Your task to perform on an android device: Add bose soundsport free to the cart on amazon Image 0: 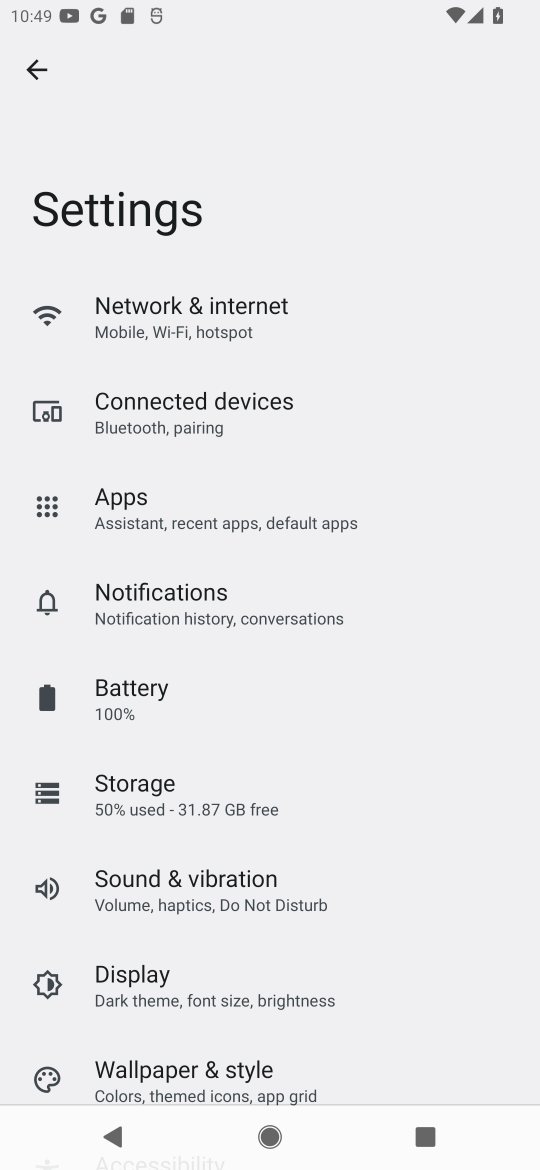
Step 0: press home button
Your task to perform on an android device: Add bose soundsport free to the cart on amazon Image 1: 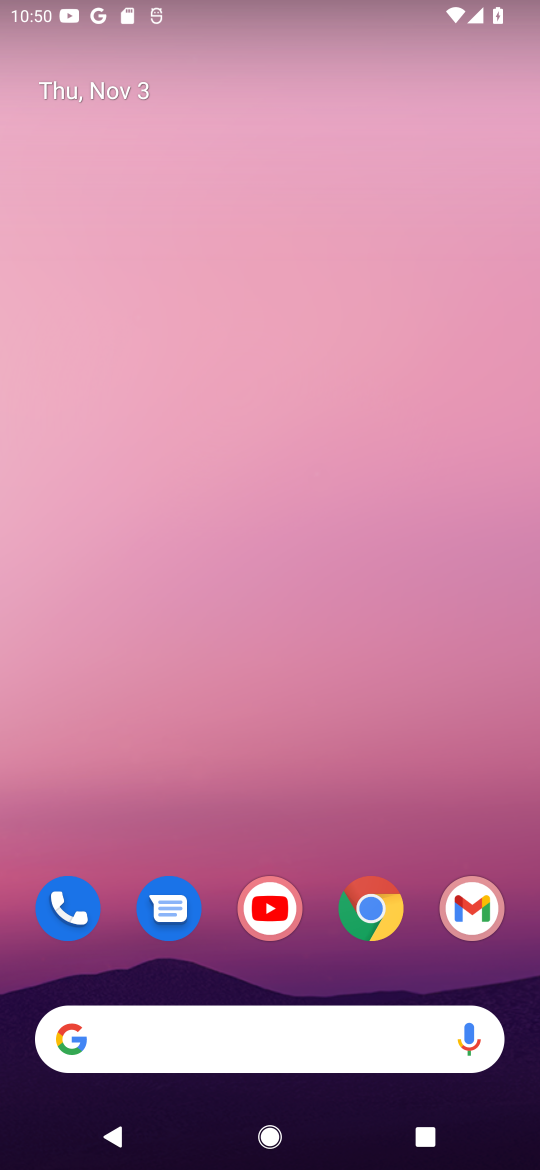
Step 1: click (381, 911)
Your task to perform on an android device: Add bose soundsport free to the cart on amazon Image 2: 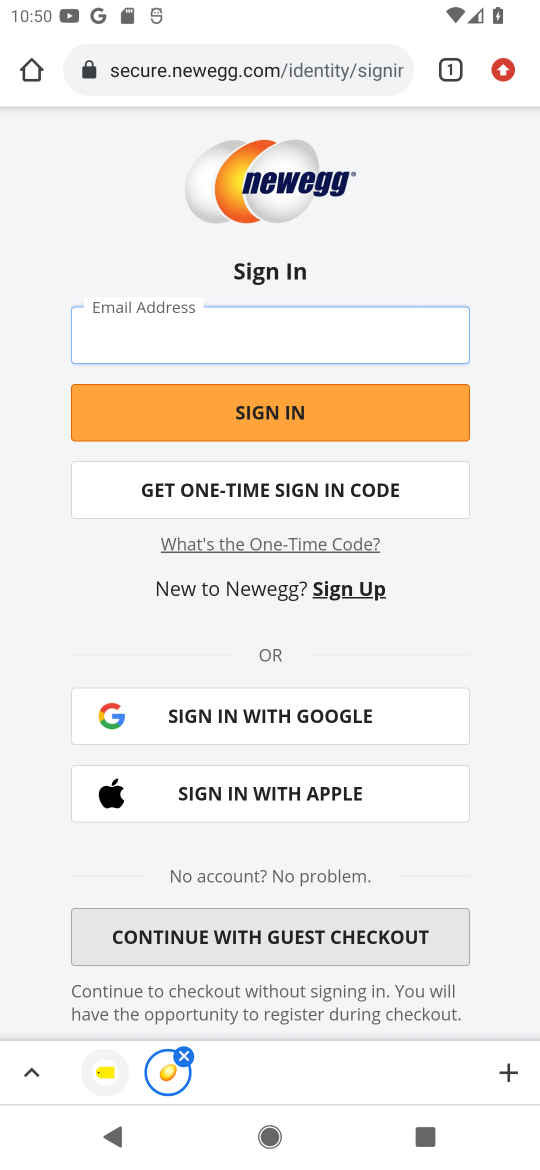
Step 2: click (25, 70)
Your task to perform on an android device: Add bose soundsport free to the cart on amazon Image 3: 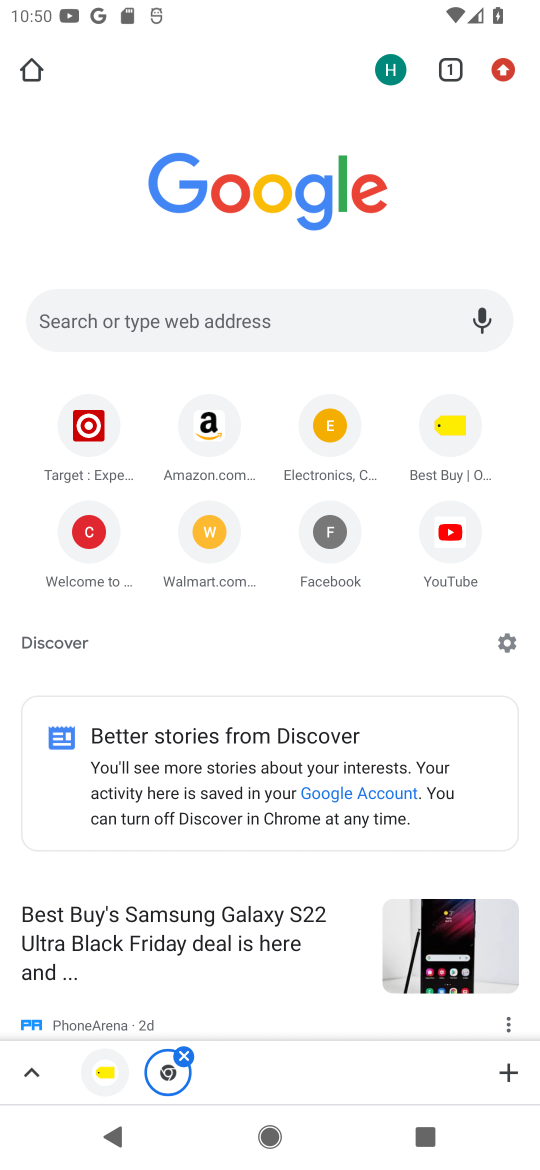
Step 3: click (213, 422)
Your task to perform on an android device: Add bose soundsport free to the cart on amazon Image 4: 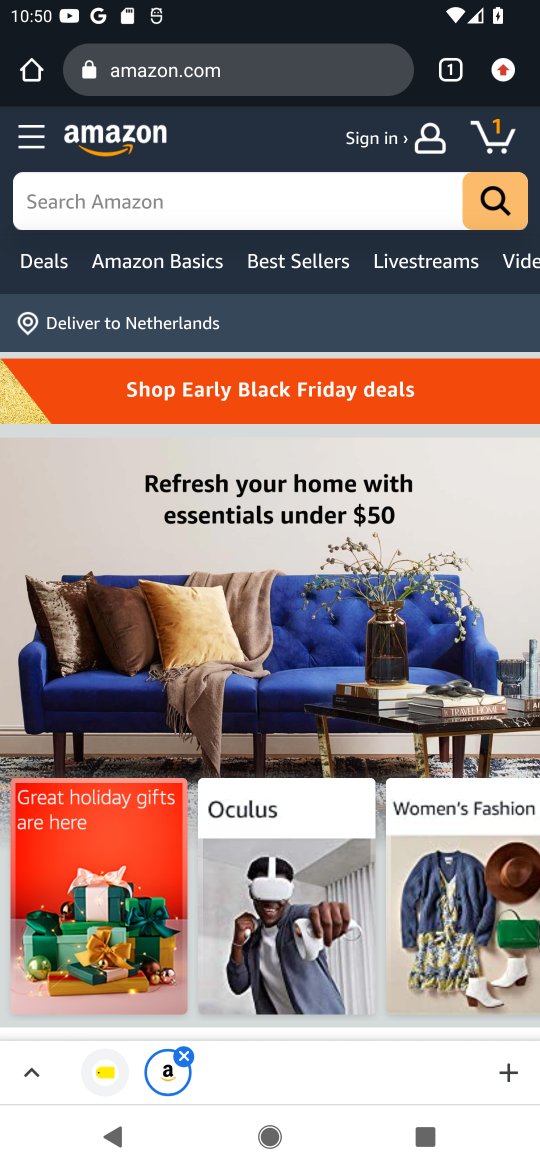
Step 4: click (312, 195)
Your task to perform on an android device: Add bose soundsport free to the cart on amazon Image 5: 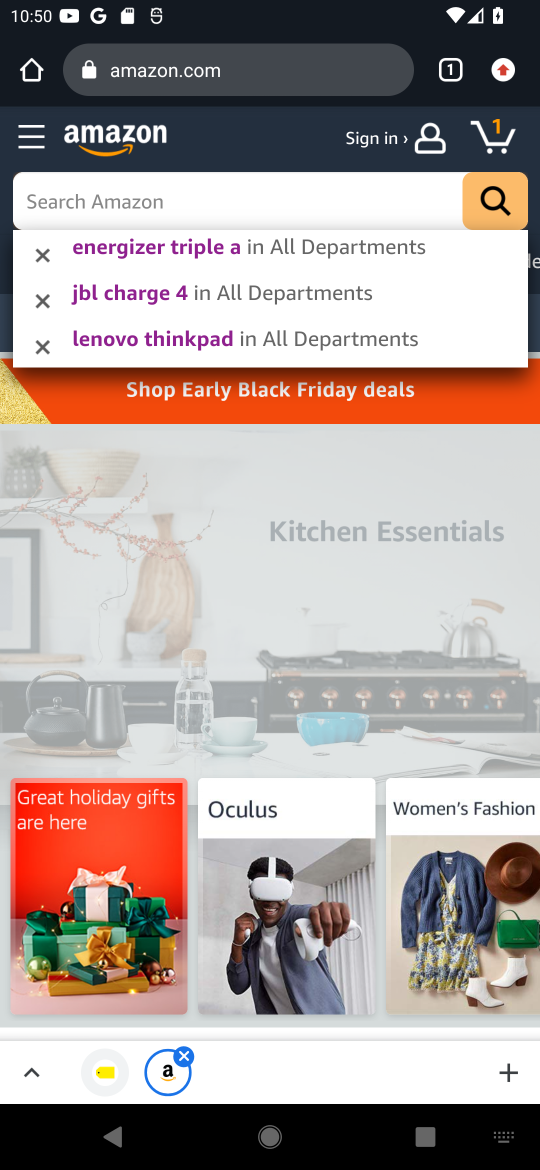
Step 5: type "bose soundsport free"
Your task to perform on an android device: Add bose soundsport free to the cart on amazon Image 6: 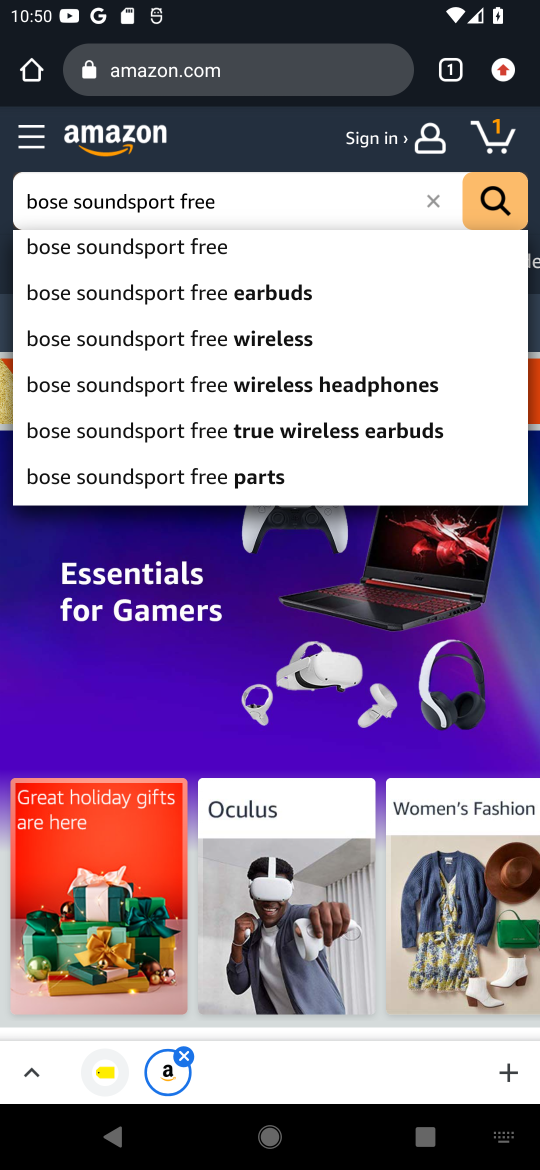
Step 6: click (47, 245)
Your task to perform on an android device: Add bose soundsport free to the cart on amazon Image 7: 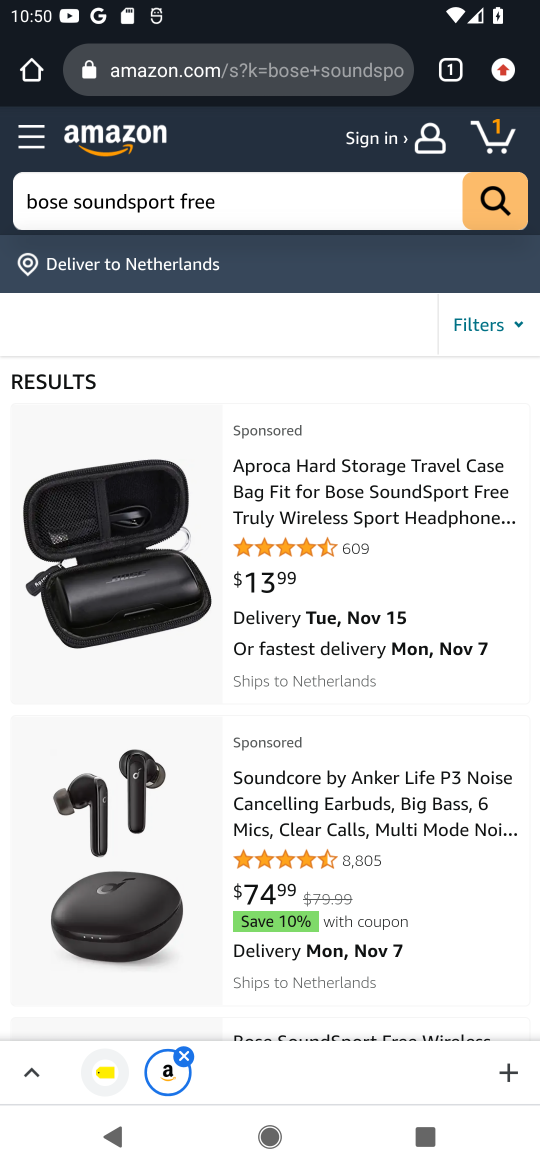
Step 7: click (126, 575)
Your task to perform on an android device: Add bose soundsport free to the cart on amazon Image 8: 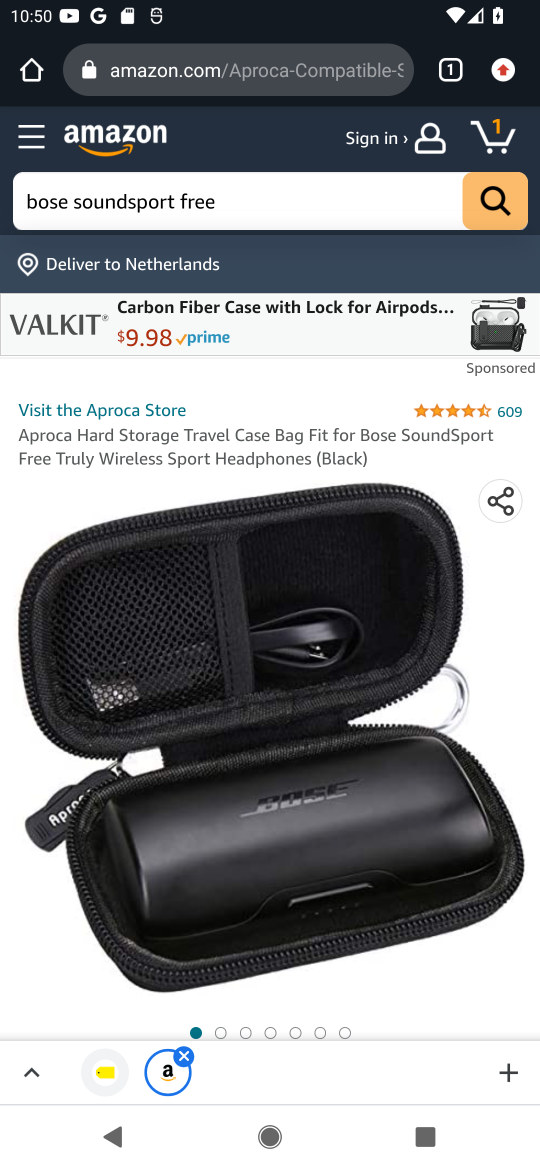
Step 8: drag from (359, 915) to (369, 683)
Your task to perform on an android device: Add bose soundsport free to the cart on amazon Image 9: 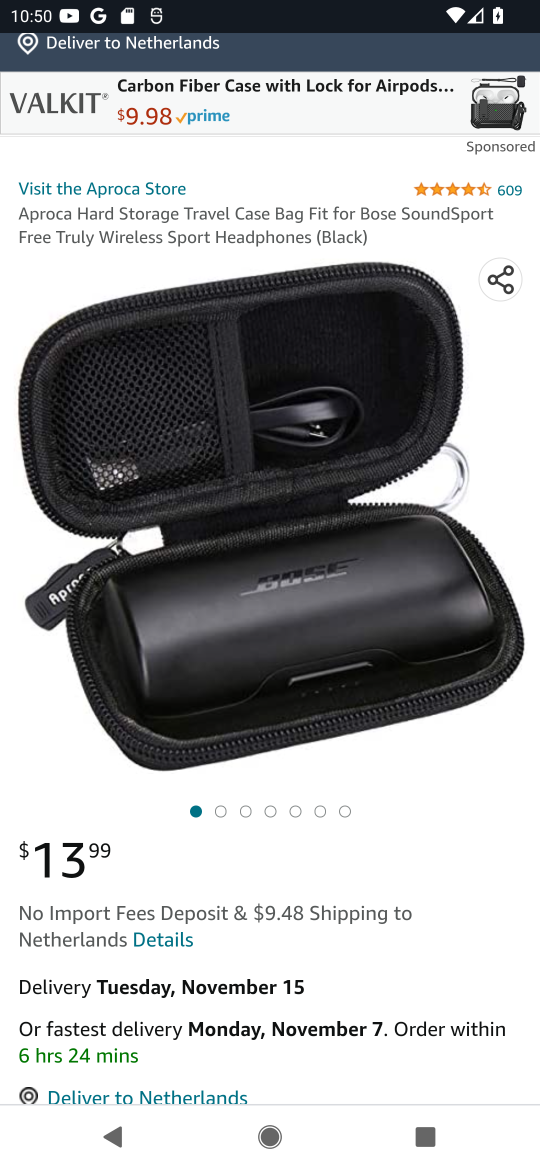
Step 9: drag from (406, 760) to (431, 499)
Your task to perform on an android device: Add bose soundsport free to the cart on amazon Image 10: 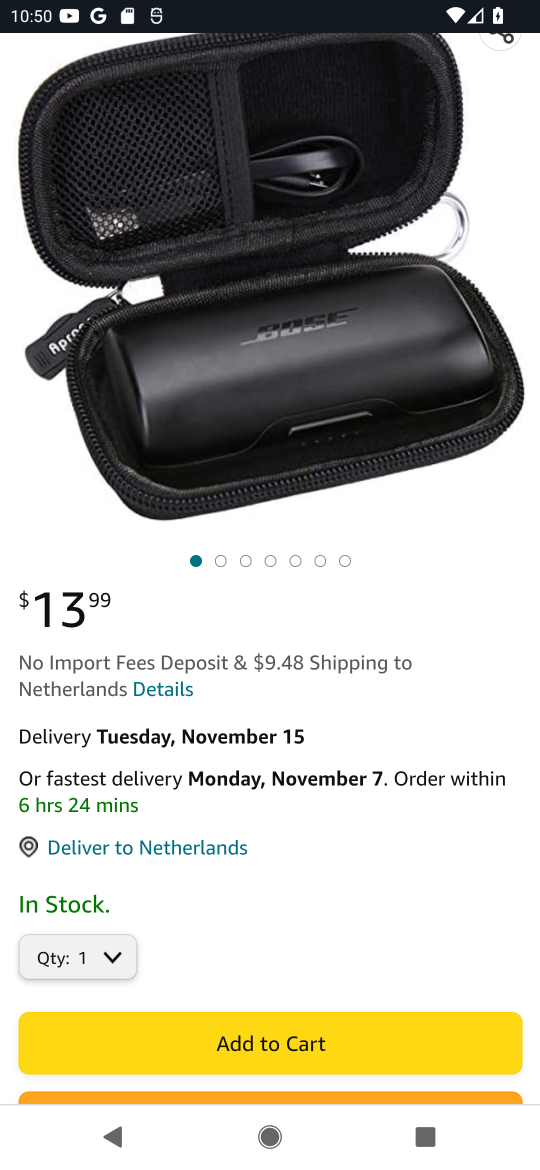
Step 10: click (316, 1036)
Your task to perform on an android device: Add bose soundsport free to the cart on amazon Image 11: 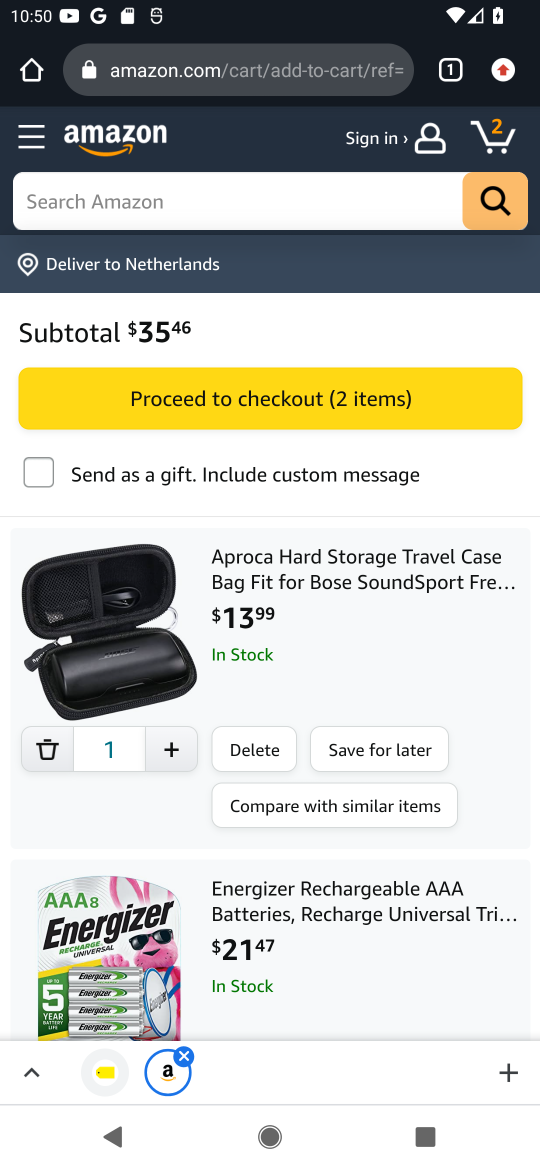
Step 11: task complete